Your task to perform on an android device: turn off wifi Image 0: 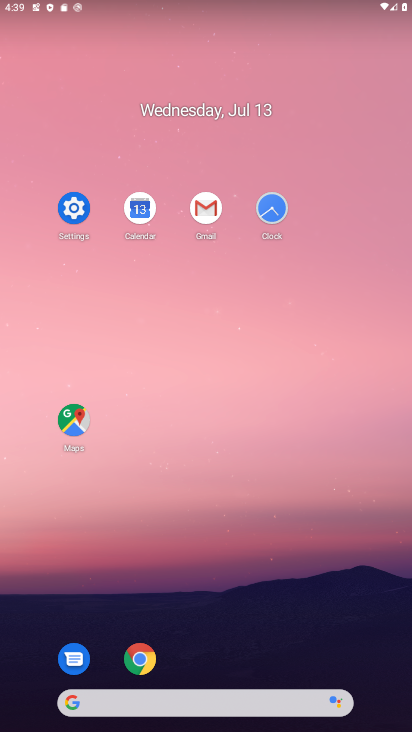
Step 0: click (74, 196)
Your task to perform on an android device: turn off wifi Image 1: 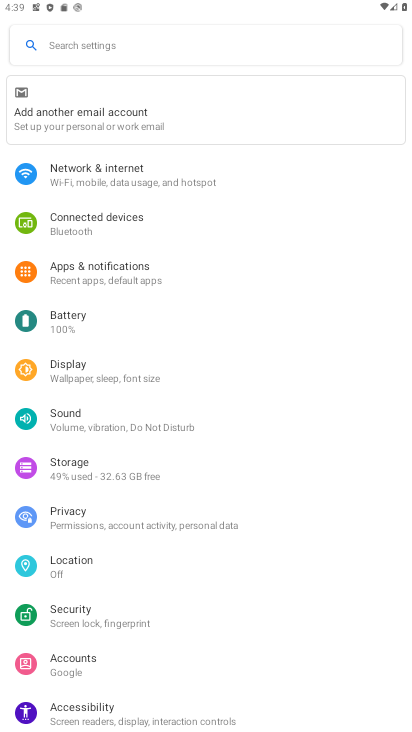
Step 1: click (104, 183)
Your task to perform on an android device: turn off wifi Image 2: 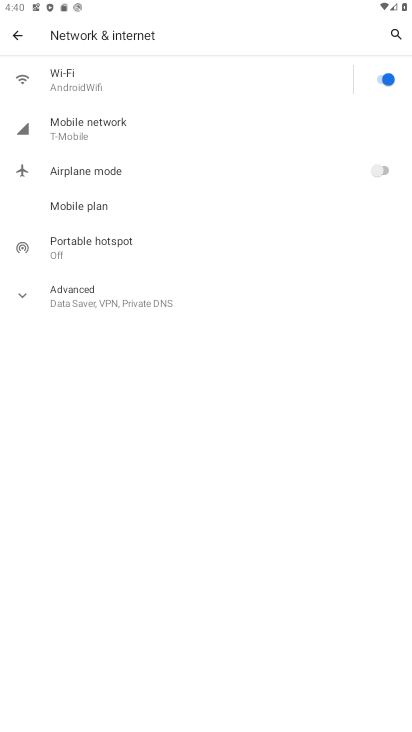
Step 2: click (382, 84)
Your task to perform on an android device: turn off wifi Image 3: 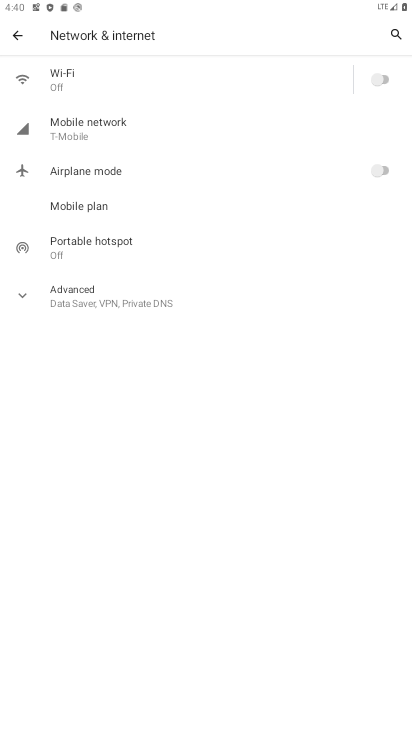
Step 3: task complete